Your task to perform on an android device: remove spam from my inbox in the gmail app Image 0: 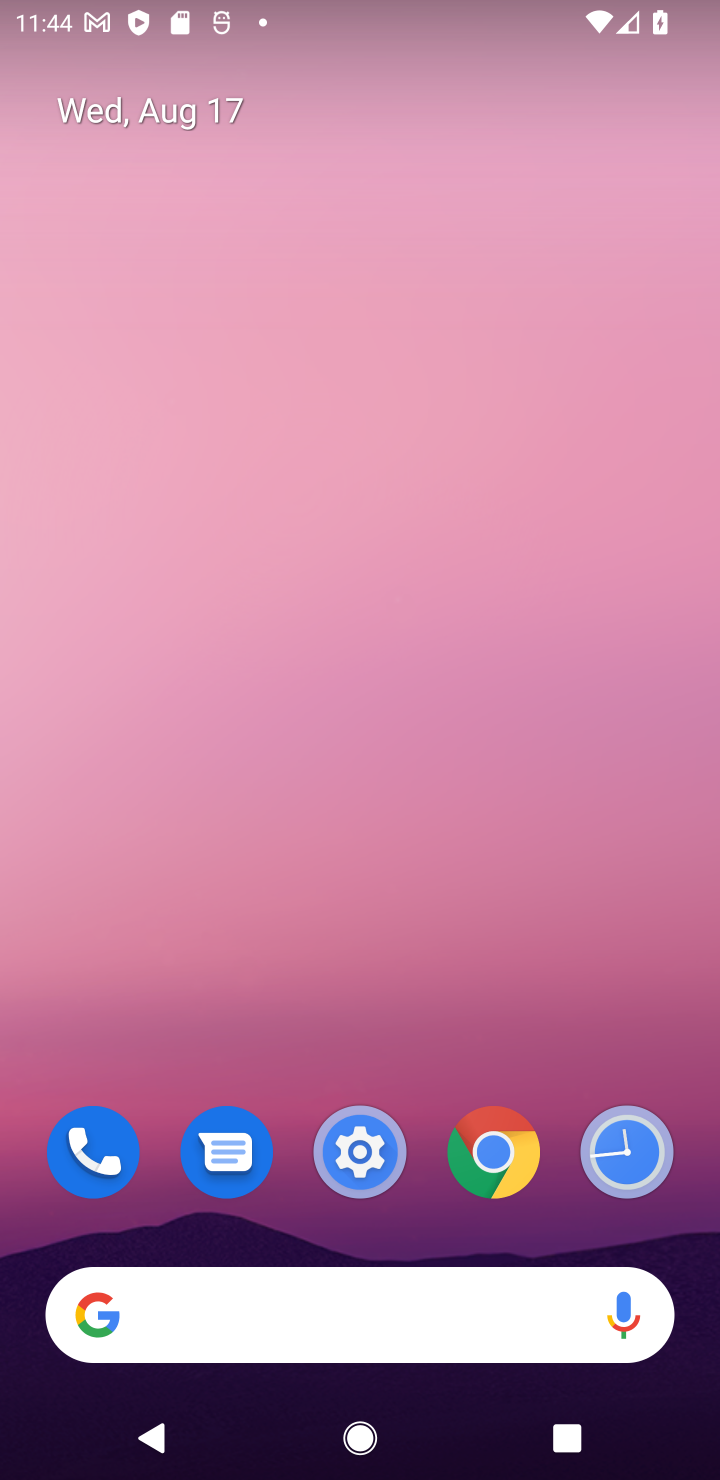
Step 0: drag from (659, 1020) to (213, 85)
Your task to perform on an android device: remove spam from my inbox in the gmail app Image 1: 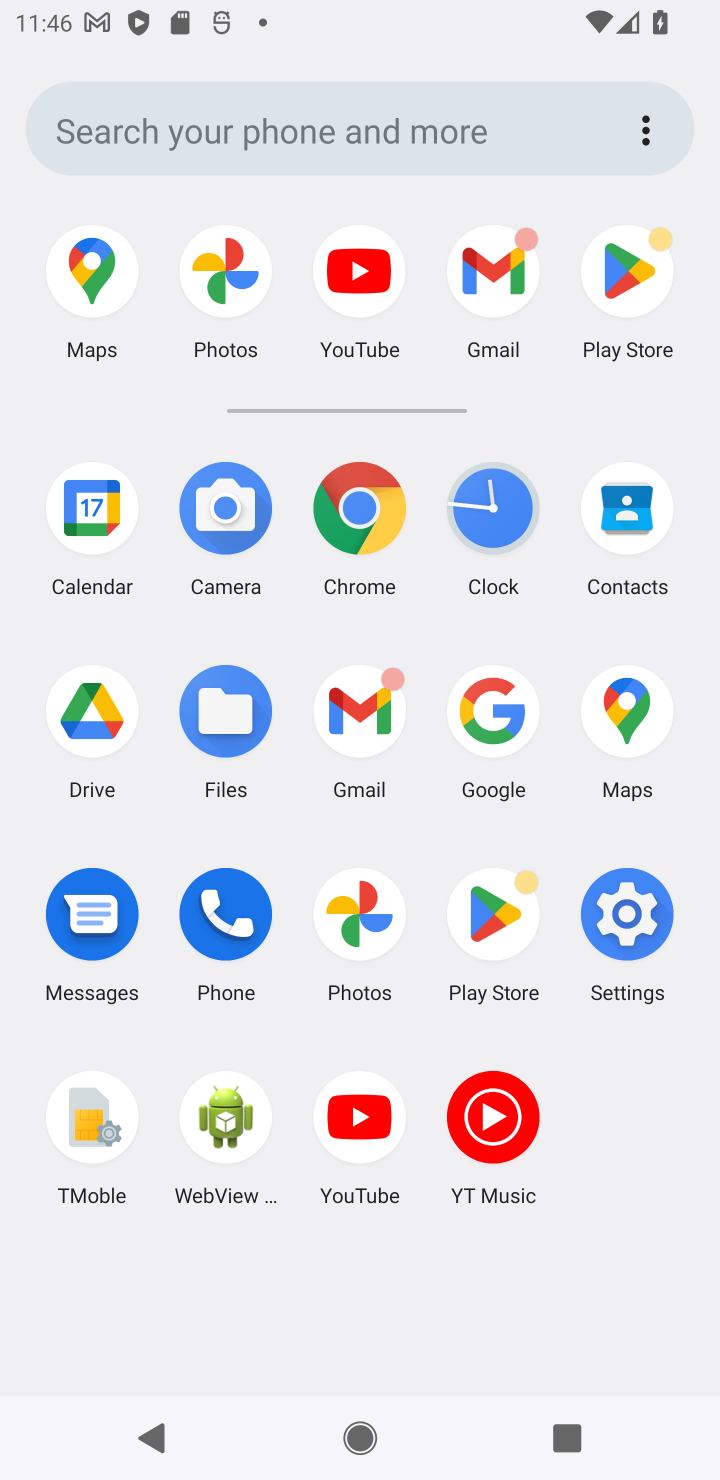
Step 1: click (333, 711)
Your task to perform on an android device: remove spam from my inbox in the gmail app Image 2: 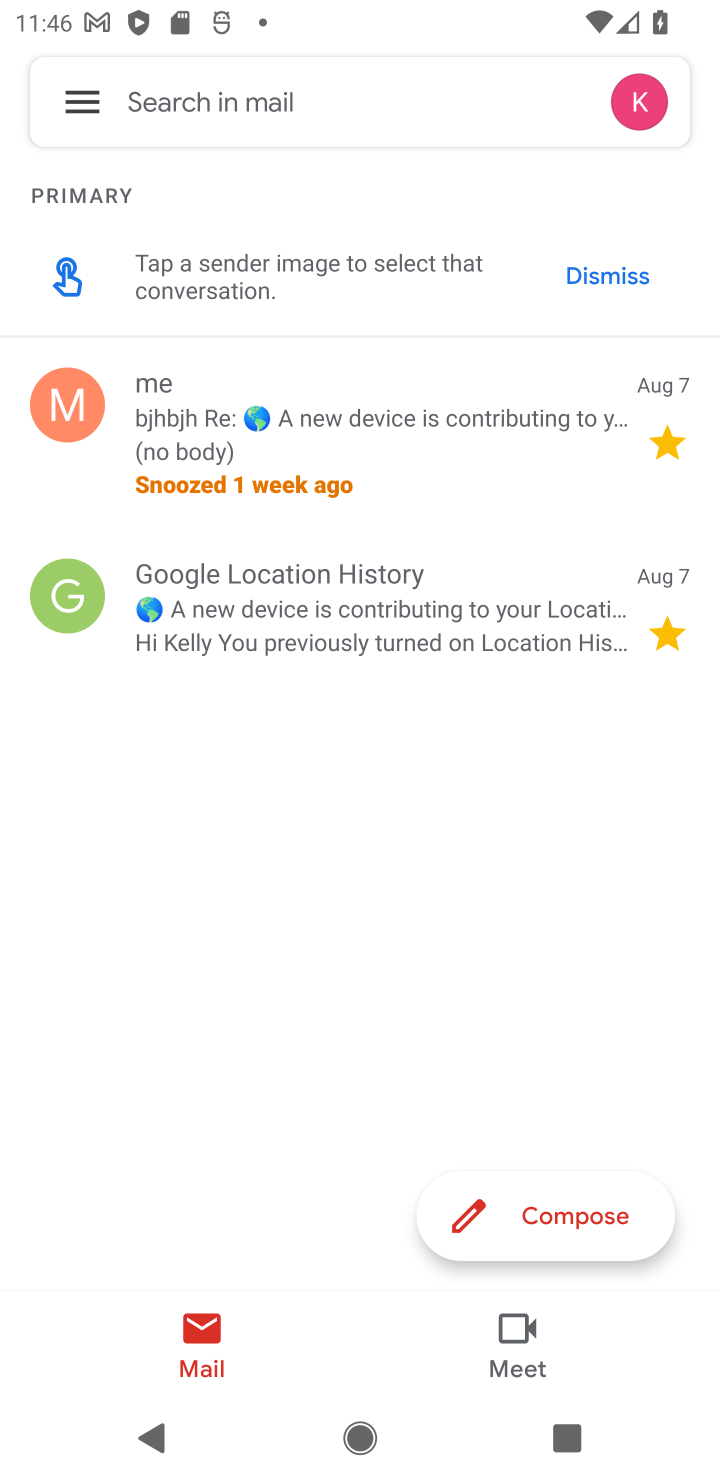
Step 2: task complete